Your task to perform on an android device: Search for seafood restaurants on Google Maps Image 0: 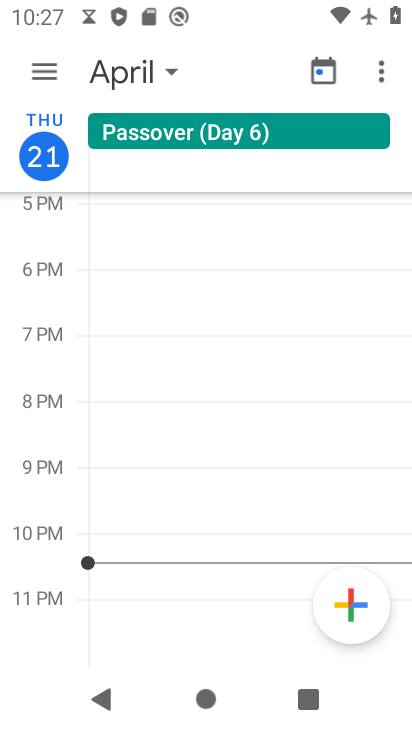
Step 0: press home button
Your task to perform on an android device: Search for seafood restaurants on Google Maps Image 1: 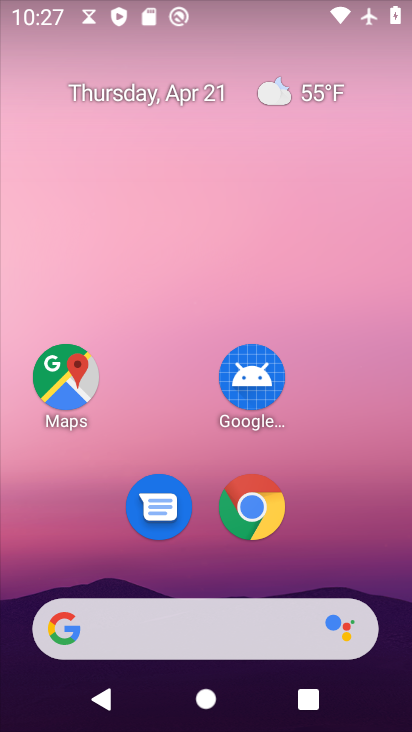
Step 1: click (48, 376)
Your task to perform on an android device: Search for seafood restaurants on Google Maps Image 2: 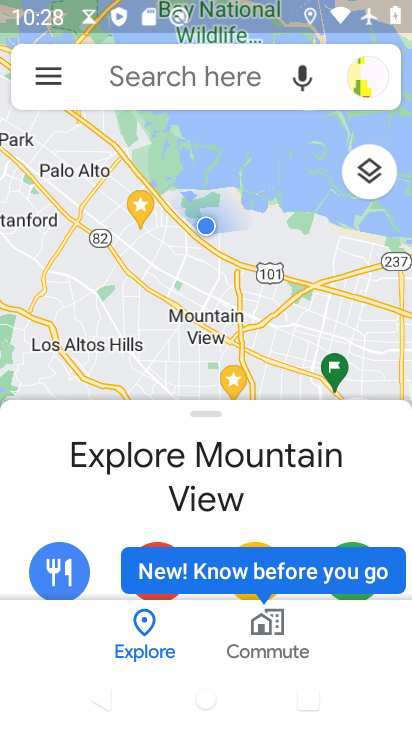
Step 2: click (177, 65)
Your task to perform on an android device: Search for seafood restaurants on Google Maps Image 3: 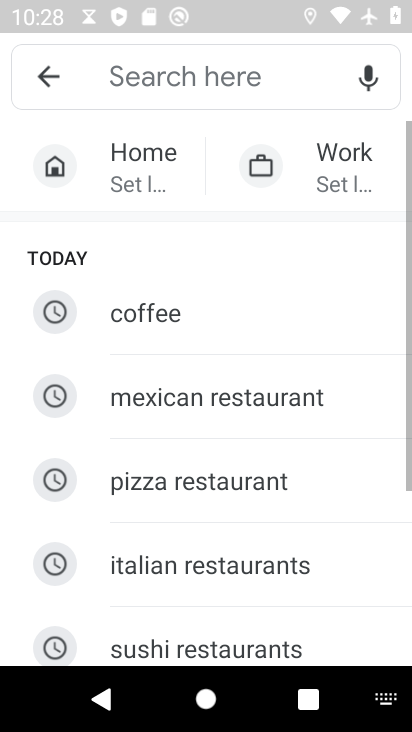
Step 3: type "seafood restaurants "
Your task to perform on an android device: Search for seafood restaurants on Google Maps Image 4: 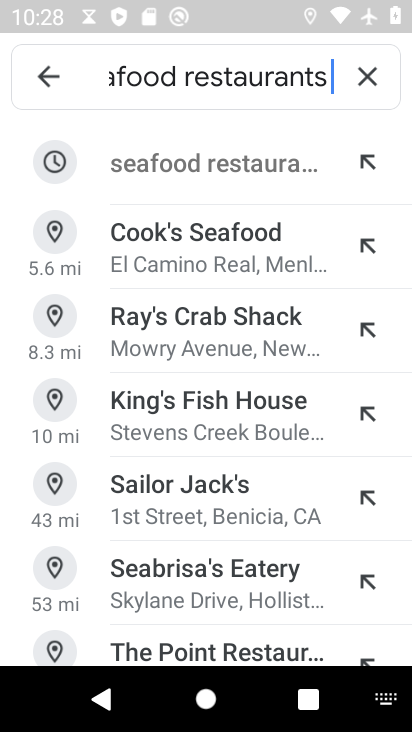
Step 4: click (266, 163)
Your task to perform on an android device: Search for seafood restaurants on Google Maps Image 5: 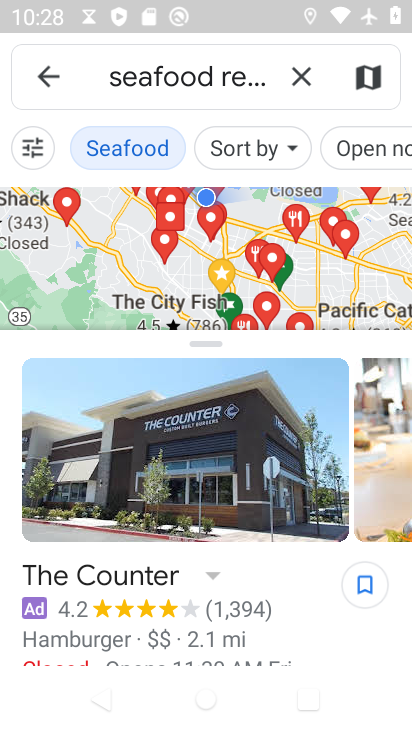
Step 5: task complete